Your task to perform on an android device: Open battery settings Image 0: 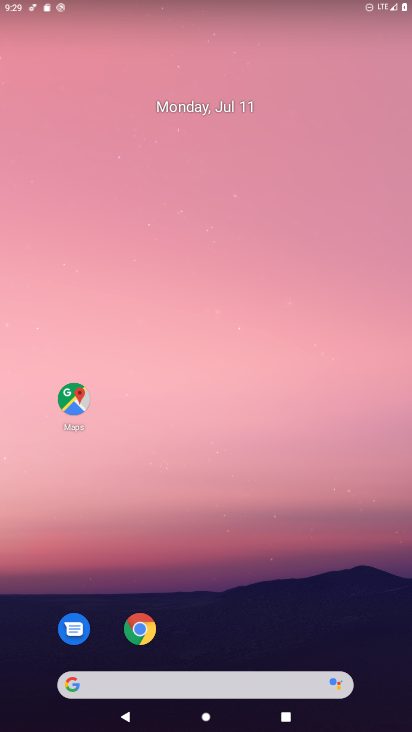
Step 0: drag from (249, 5) to (275, 578)
Your task to perform on an android device: Open battery settings Image 1: 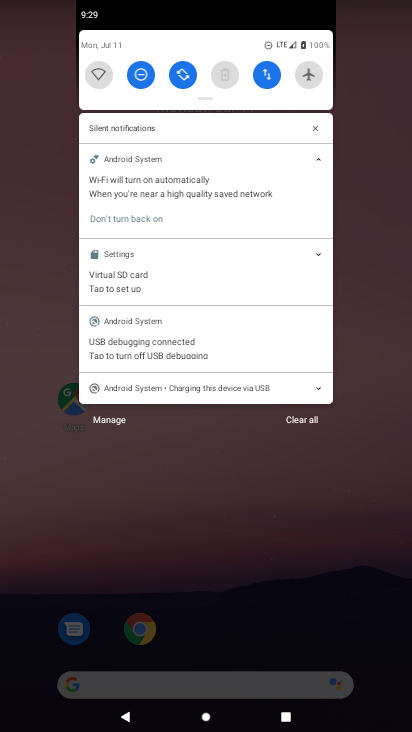
Step 1: click (225, 78)
Your task to perform on an android device: Open battery settings Image 2: 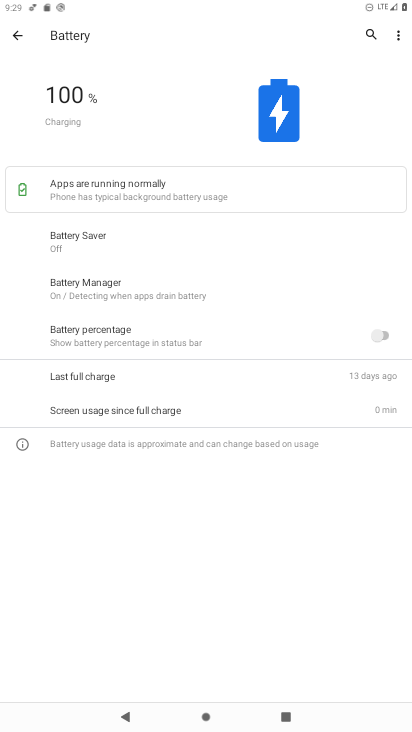
Step 2: task complete